Your task to perform on an android device: Do I have any events tomorrow? Image 0: 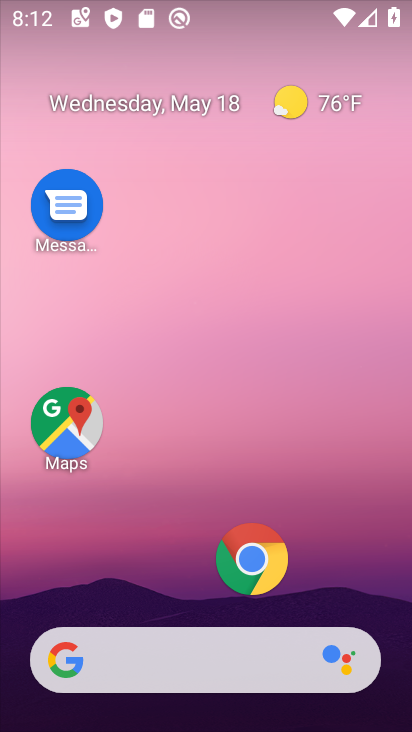
Step 0: click (233, 644)
Your task to perform on an android device: Do I have any events tomorrow? Image 1: 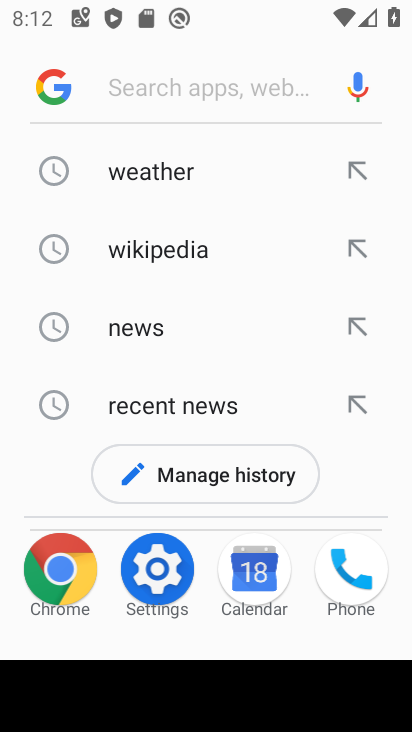
Step 1: press home button
Your task to perform on an android device: Do I have any events tomorrow? Image 2: 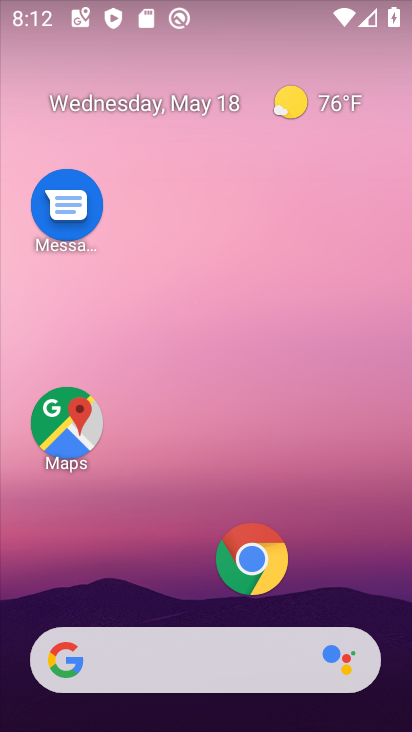
Step 2: drag from (197, 606) to (193, 37)
Your task to perform on an android device: Do I have any events tomorrow? Image 3: 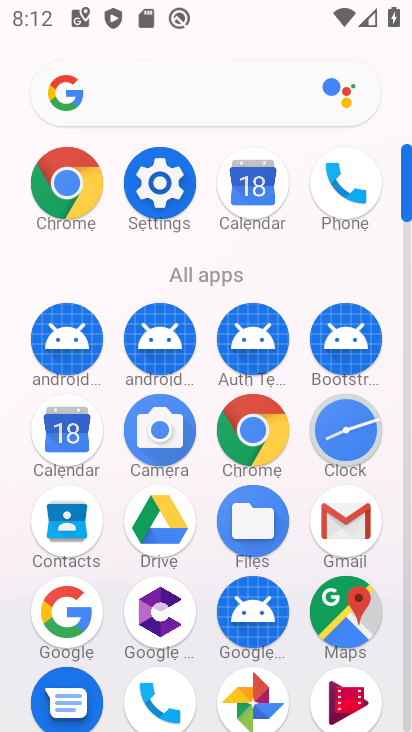
Step 3: click (69, 449)
Your task to perform on an android device: Do I have any events tomorrow? Image 4: 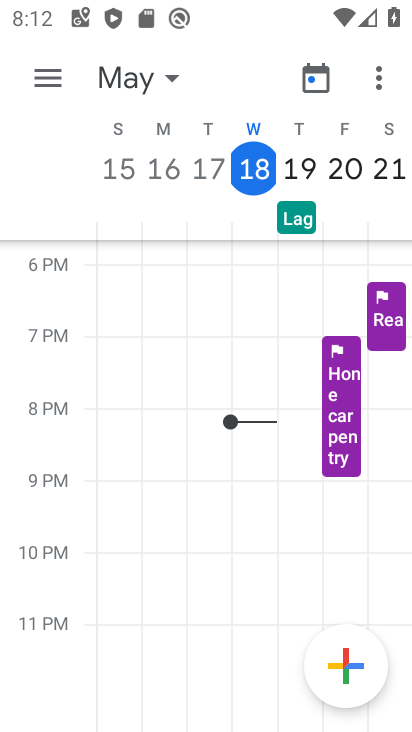
Step 4: click (302, 168)
Your task to perform on an android device: Do I have any events tomorrow? Image 5: 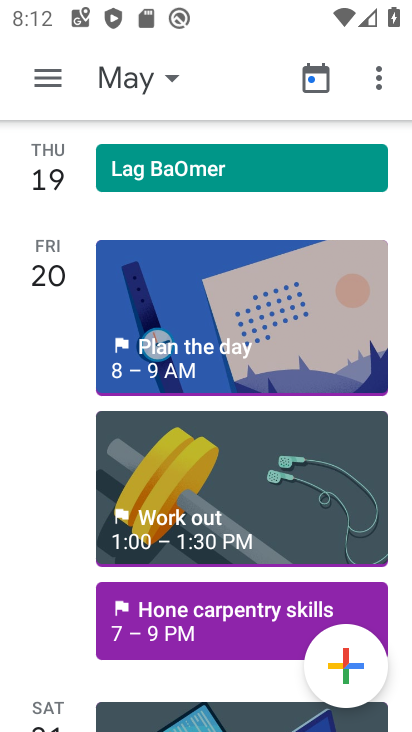
Step 5: task complete